Your task to perform on an android device: change text size in settings app Image 0: 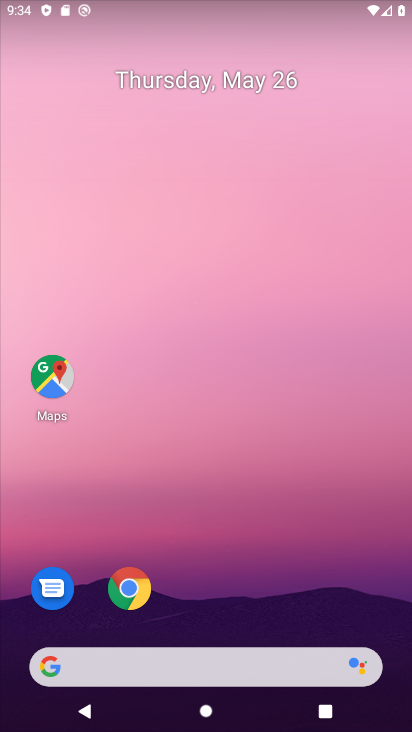
Step 0: drag from (225, 728) to (219, 70)
Your task to perform on an android device: change text size in settings app Image 1: 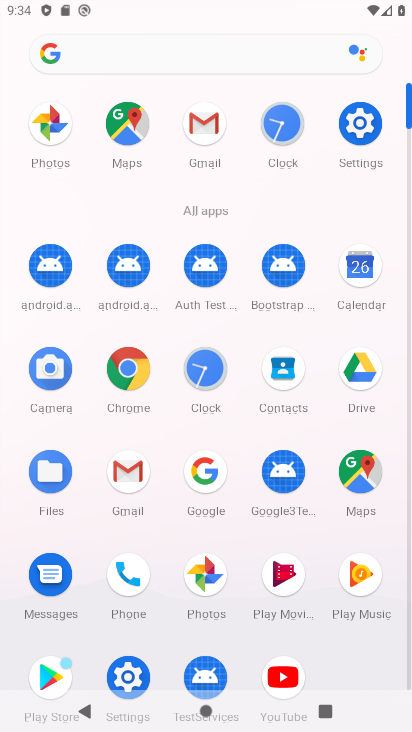
Step 1: click (352, 131)
Your task to perform on an android device: change text size in settings app Image 2: 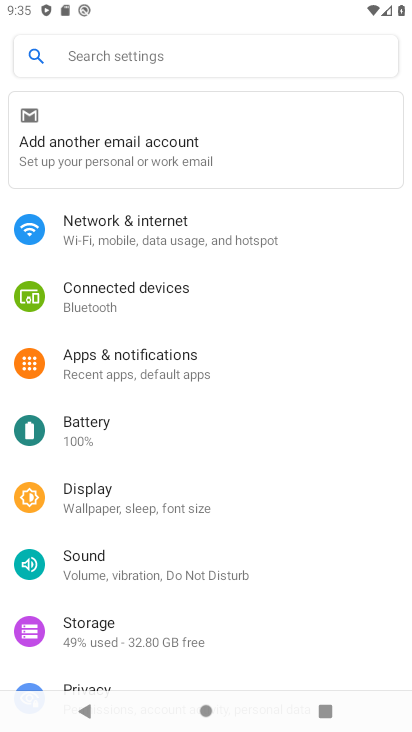
Step 2: click (94, 498)
Your task to perform on an android device: change text size in settings app Image 3: 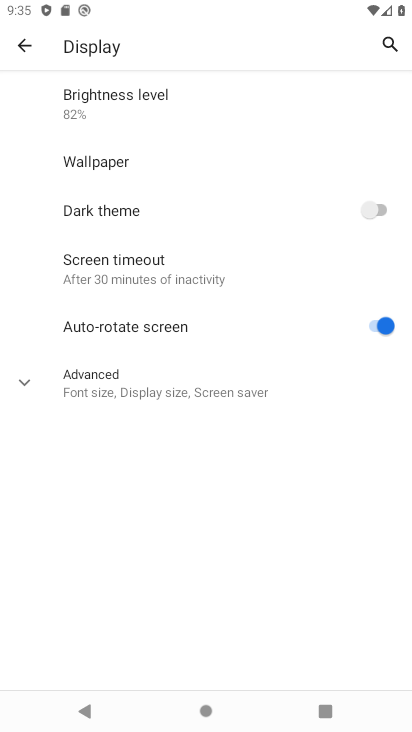
Step 3: click (120, 388)
Your task to perform on an android device: change text size in settings app Image 4: 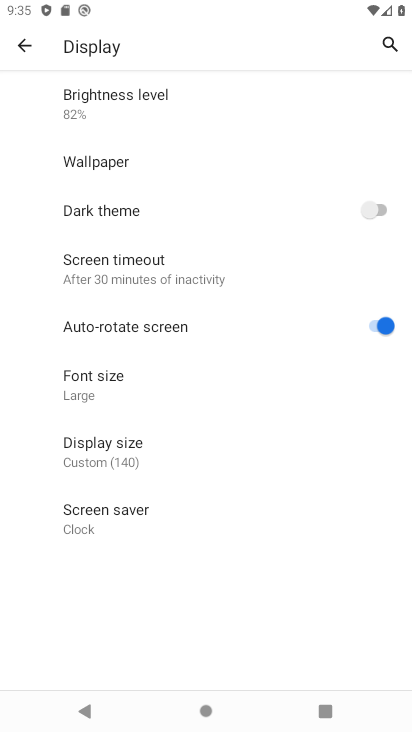
Step 4: click (92, 385)
Your task to perform on an android device: change text size in settings app Image 5: 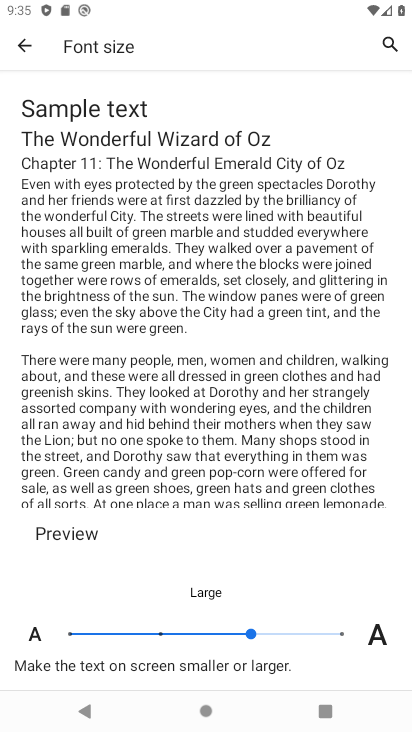
Step 5: click (154, 634)
Your task to perform on an android device: change text size in settings app Image 6: 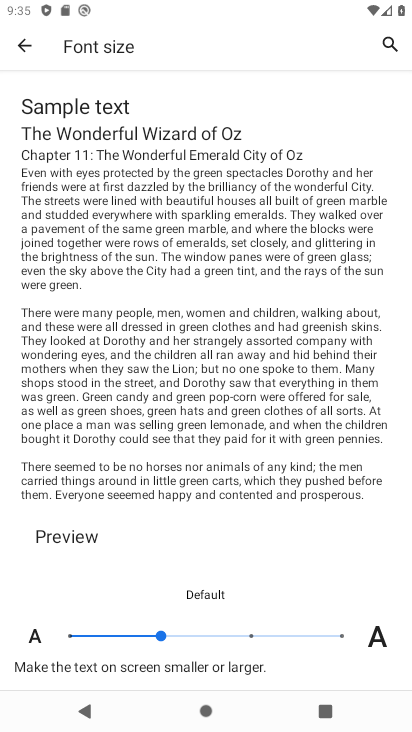
Step 6: task complete